Your task to perform on an android device: toggle notification dots Image 0: 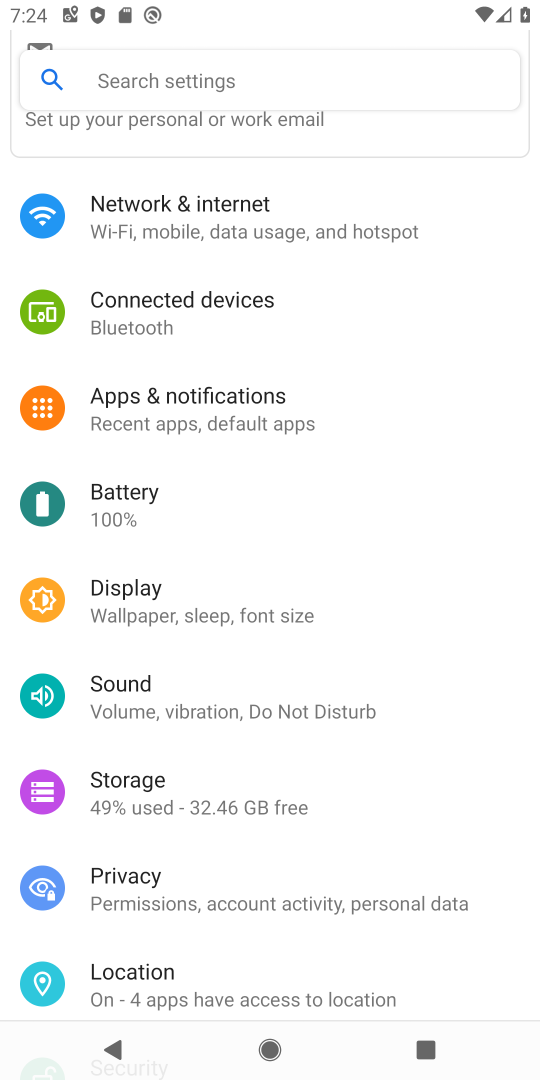
Step 0: click (197, 395)
Your task to perform on an android device: toggle notification dots Image 1: 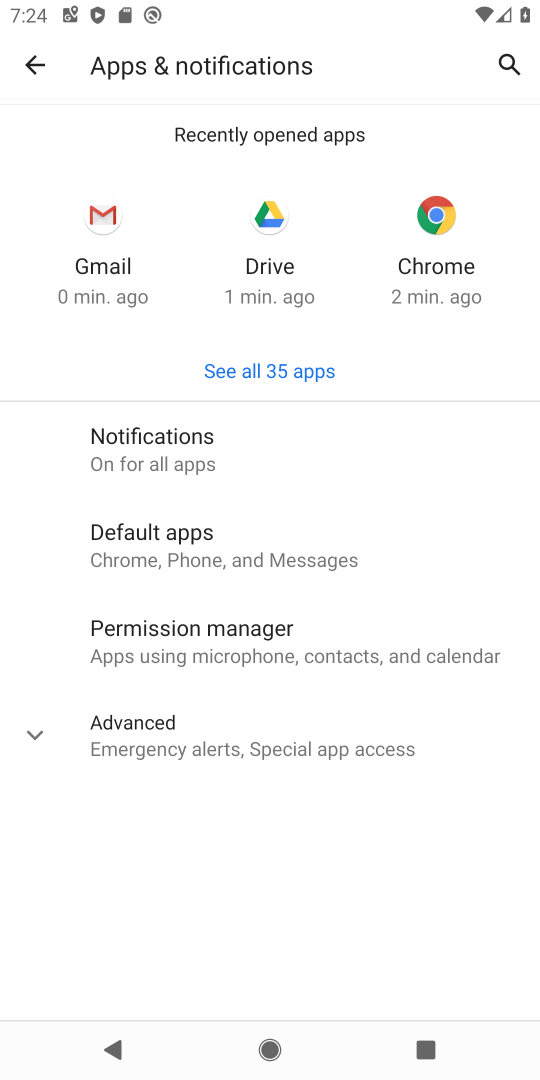
Step 1: click (36, 736)
Your task to perform on an android device: toggle notification dots Image 2: 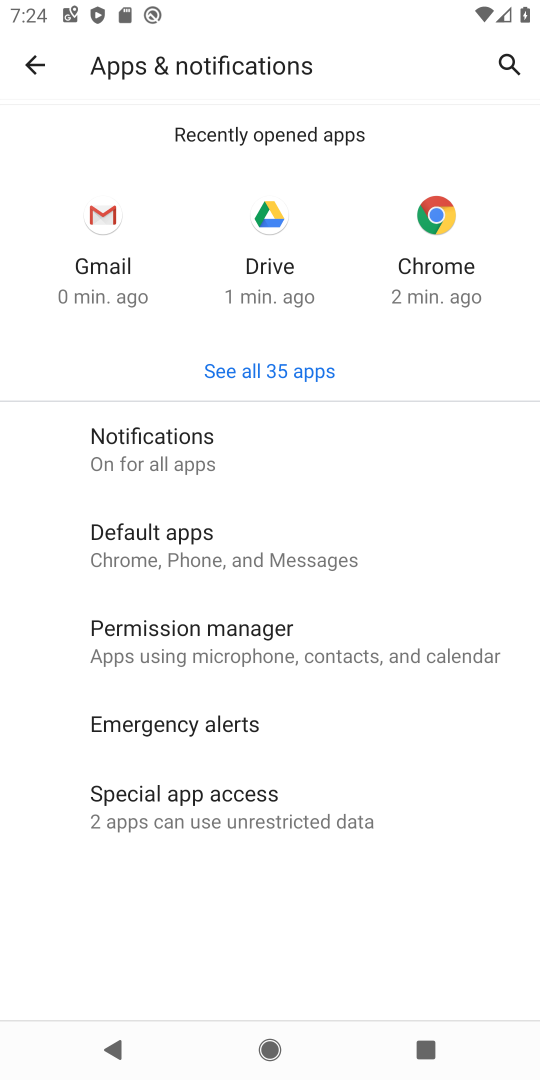
Step 2: click (143, 429)
Your task to perform on an android device: toggle notification dots Image 3: 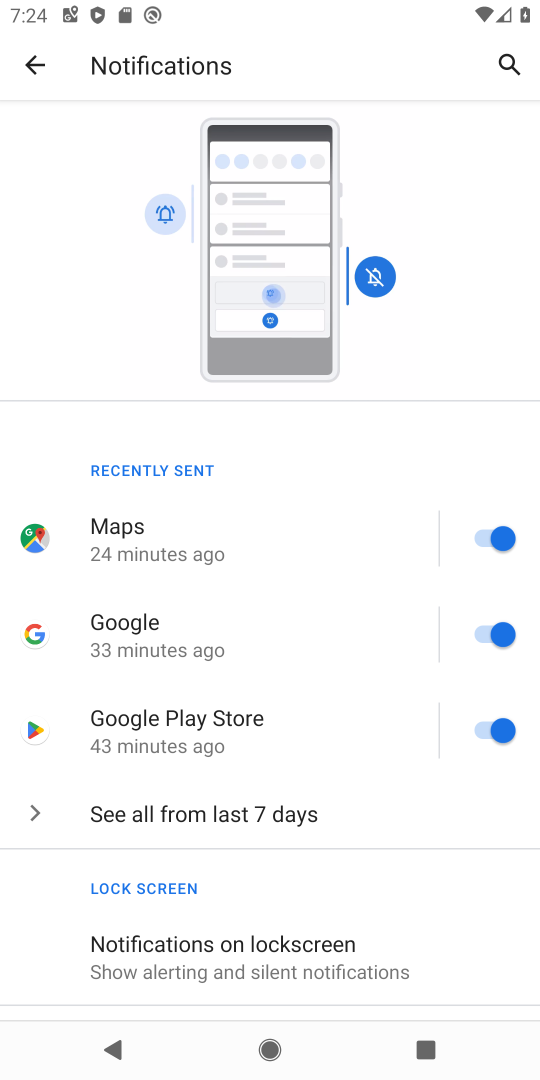
Step 3: drag from (368, 883) to (372, 446)
Your task to perform on an android device: toggle notification dots Image 4: 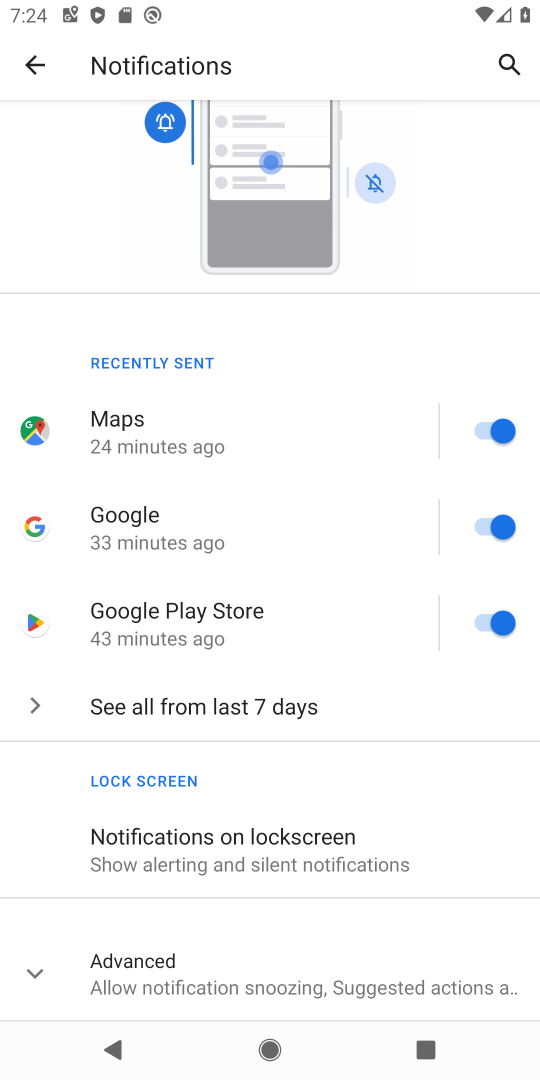
Step 4: click (36, 973)
Your task to perform on an android device: toggle notification dots Image 5: 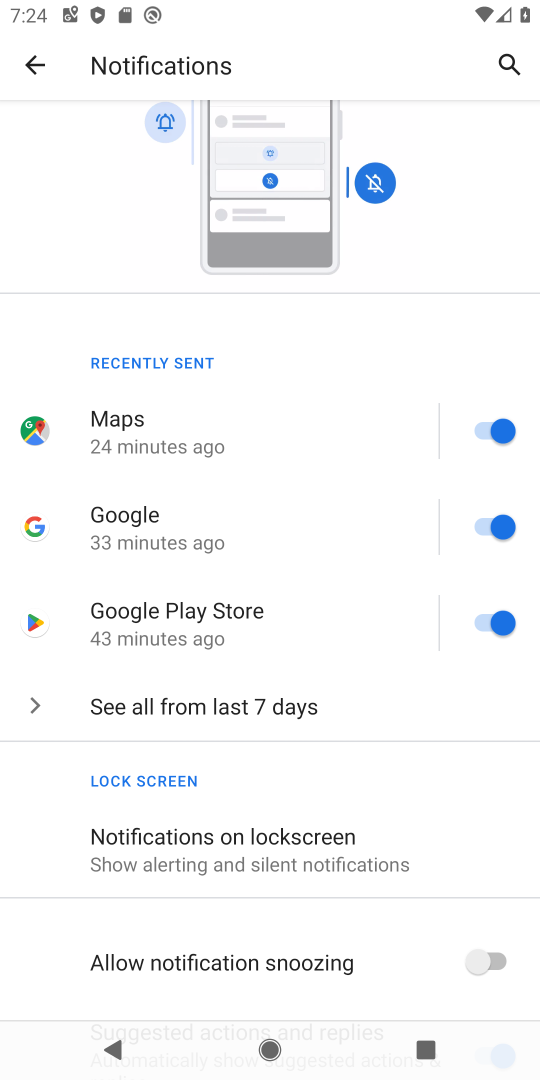
Step 5: drag from (300, 893) to (296, 449)
Your task to perform on an android device: toggle notification dots Image 6: 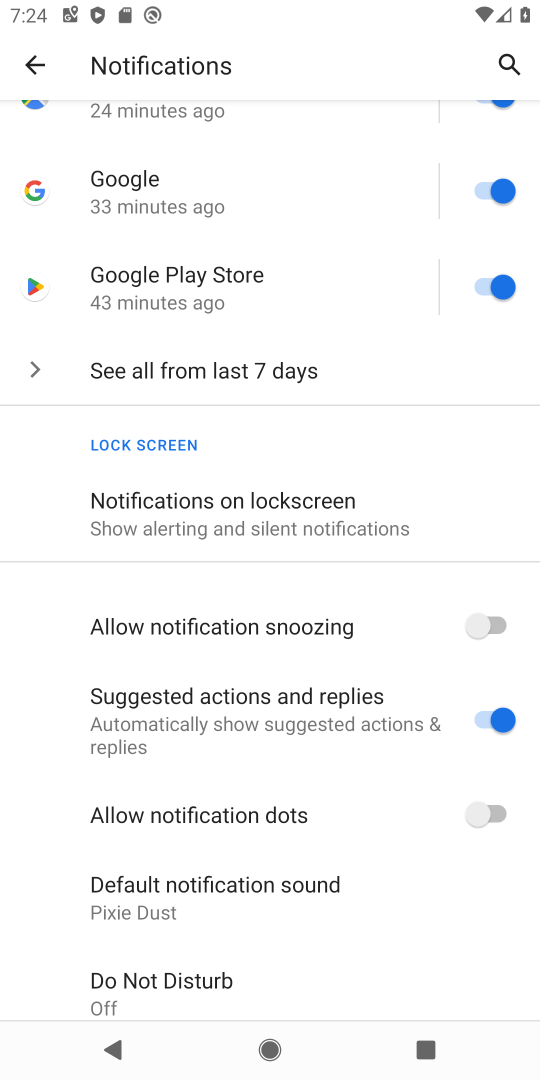
Step 6: click (478, 817)
Your task to perform on an android device: toggle notification dots Image 7: 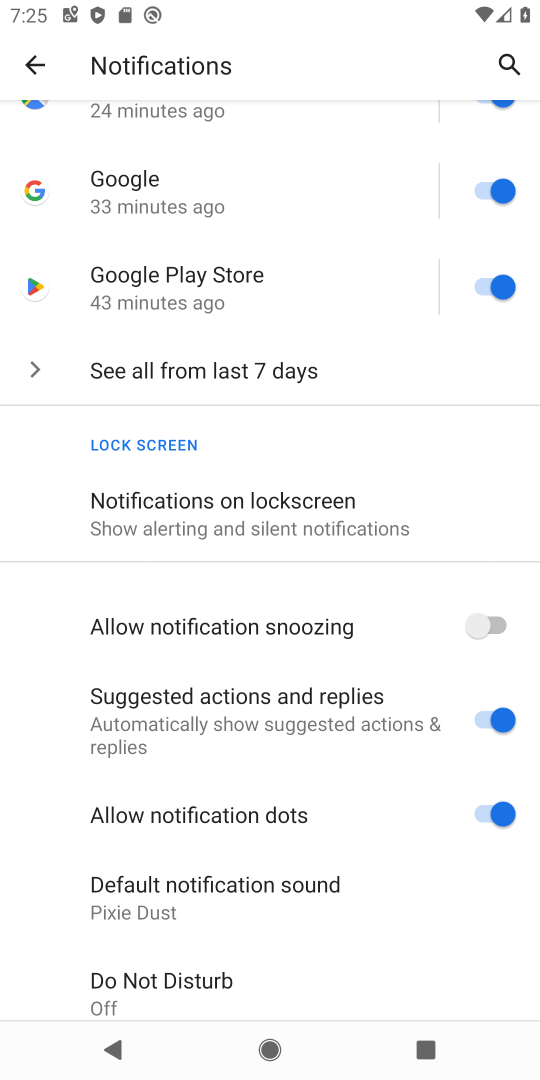
Step 7: task complete